Your task to perform on an android device: Go to Maps Image 0: 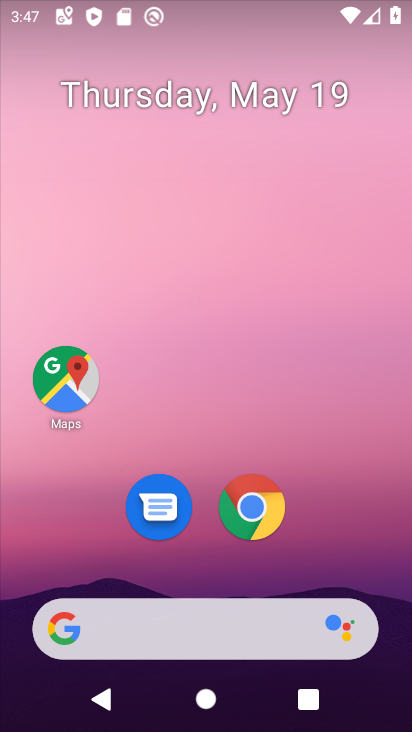
Step 0: click (64, 367)
Your task to perform on an android device: Go to Maps Image 1: 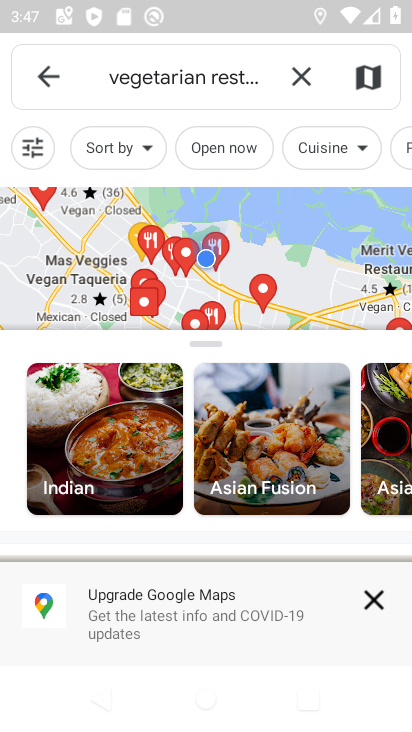
Step 1: task complete